Your task to perform on an android device: Turn off the flashlight Image 0: 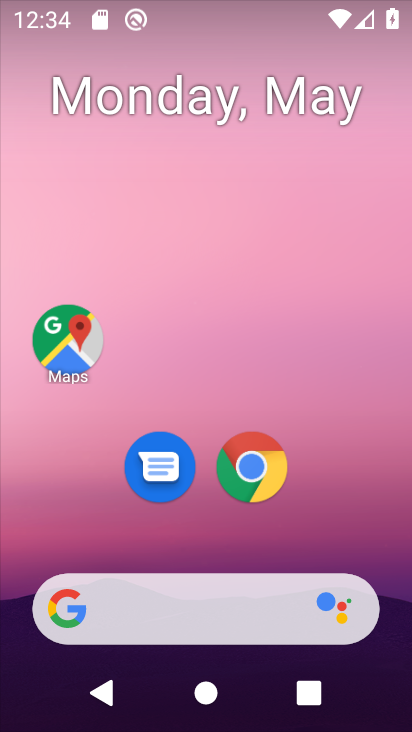
Step 0: drag from (178, 527) to (205, 330)
Your task to perform on an android device: Turn off the flashlight Image 1: 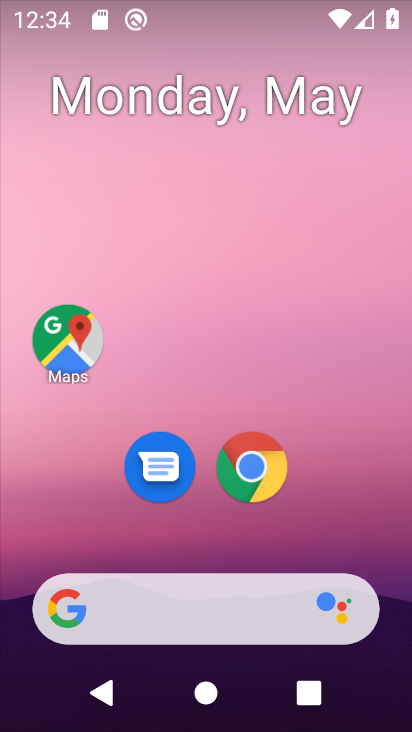
Step 1: drag from (192, 545) to (244, 244)
Your task to perform on an android device: Turn off the flashlight Image 2: 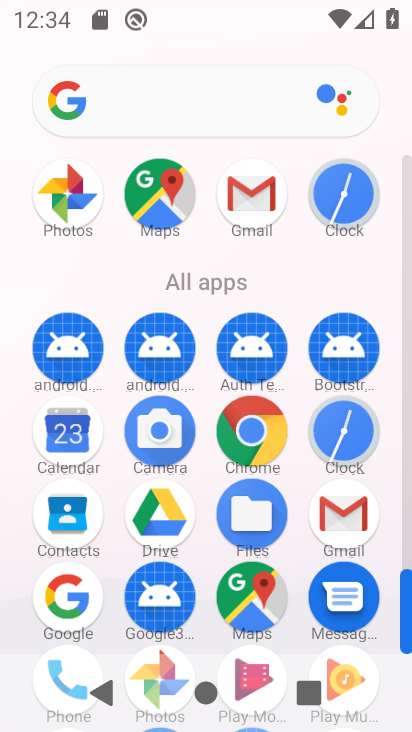
Step 2: drag from (203, 615) to (212, 289)
Your task to perform on an android device: Turn off the flashlight Image 3: 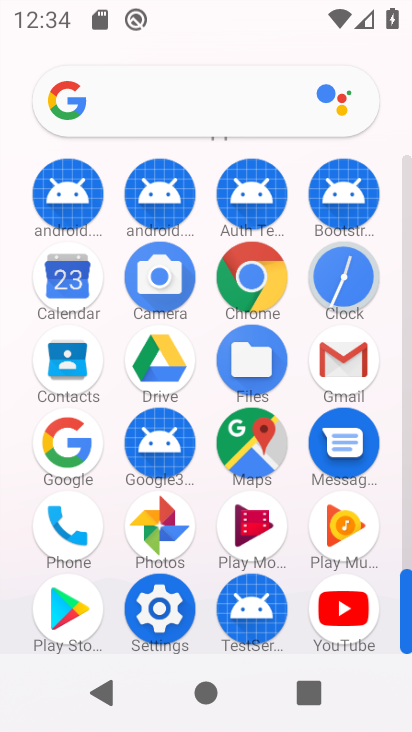
Step 3: click (176, 594)
Your task to perform on an android device: Turn off the flashlight Image 4: 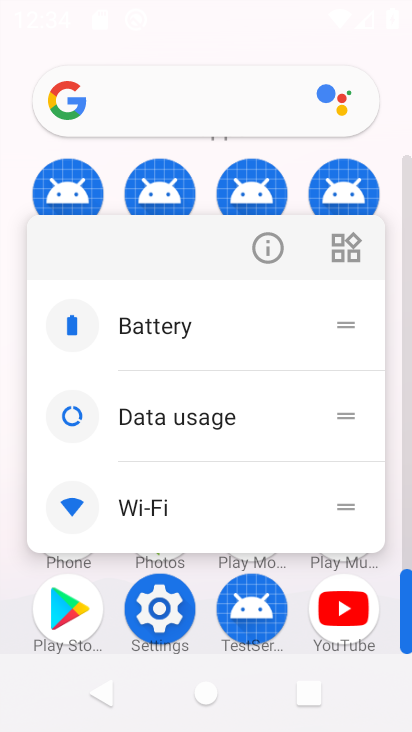
Step 4: click (275, 261)
Your task to perform on an android device: Turn off the flashlight Image 5: 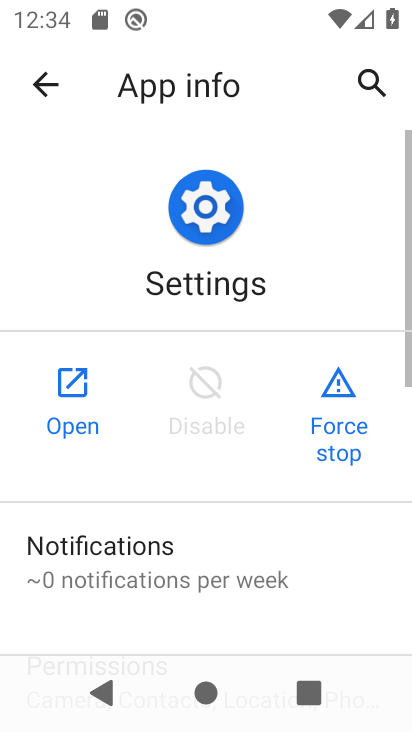
Step 5: click (67, 382)
Your task to perform on an android device: Turn off the flashlight Image 6: 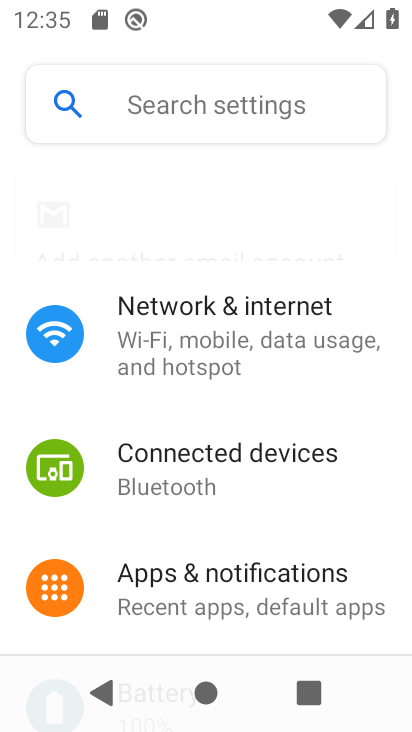
Step 6: click (202, 108)
Your task to perform on an android device: Turn off the flashlight Image 7: 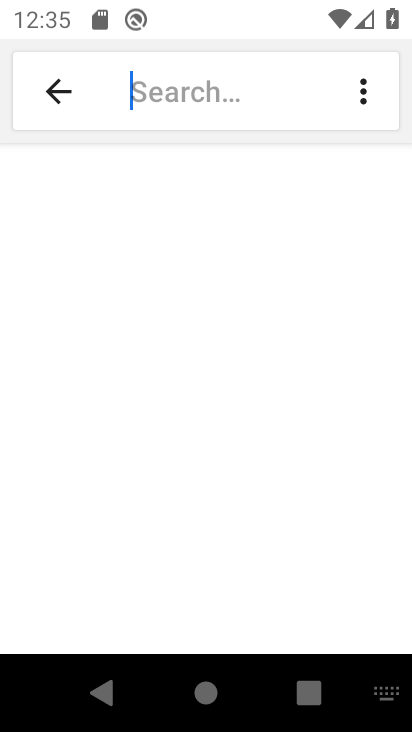
Step 7: type "flashlight"
Your task to perform on an android device: Turn off the flashlight Image 8: 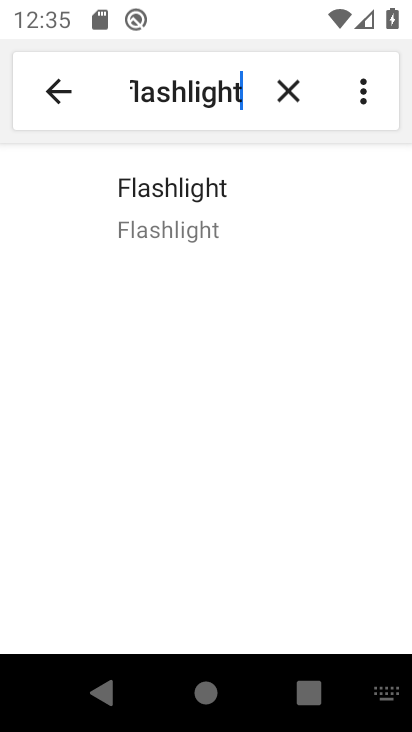
Step 8: click (211, 215)
Your task to perform on an android device: Turn off the flashlight Image 9: 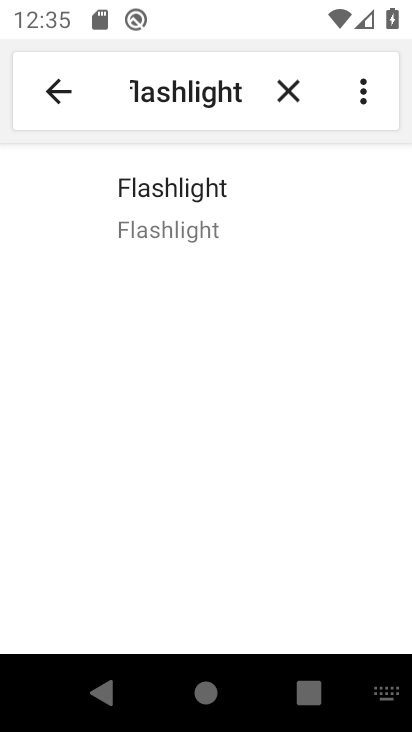
Step 9: task complete